Your task to perform on an android device: delete browsing data in the chrome app Image 0: 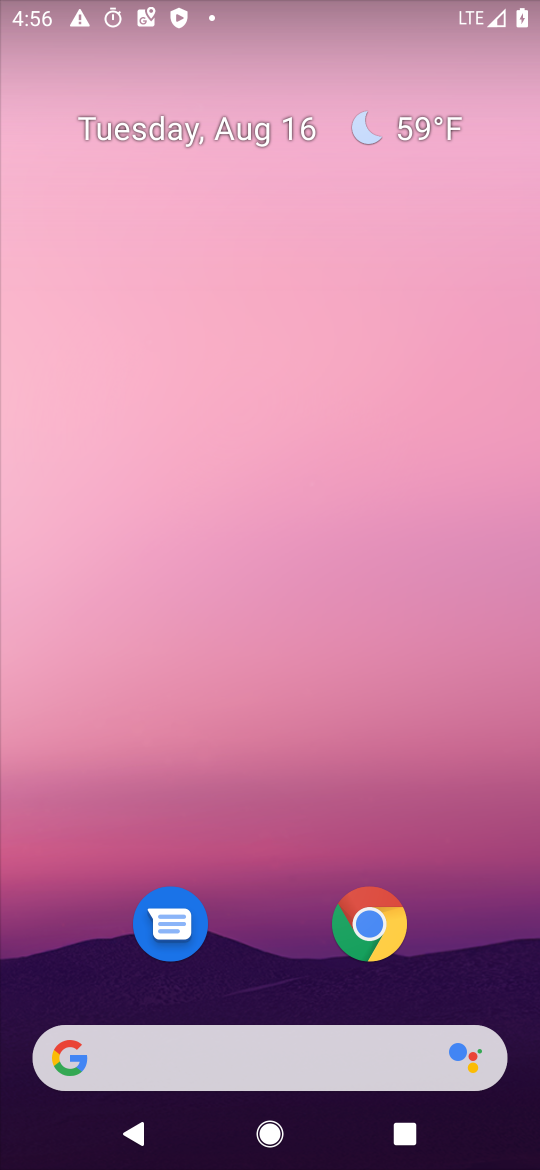
Step 0: click (354, 919)
Your task to perform on an android device: delete browsing data in the chrome app Image 1: 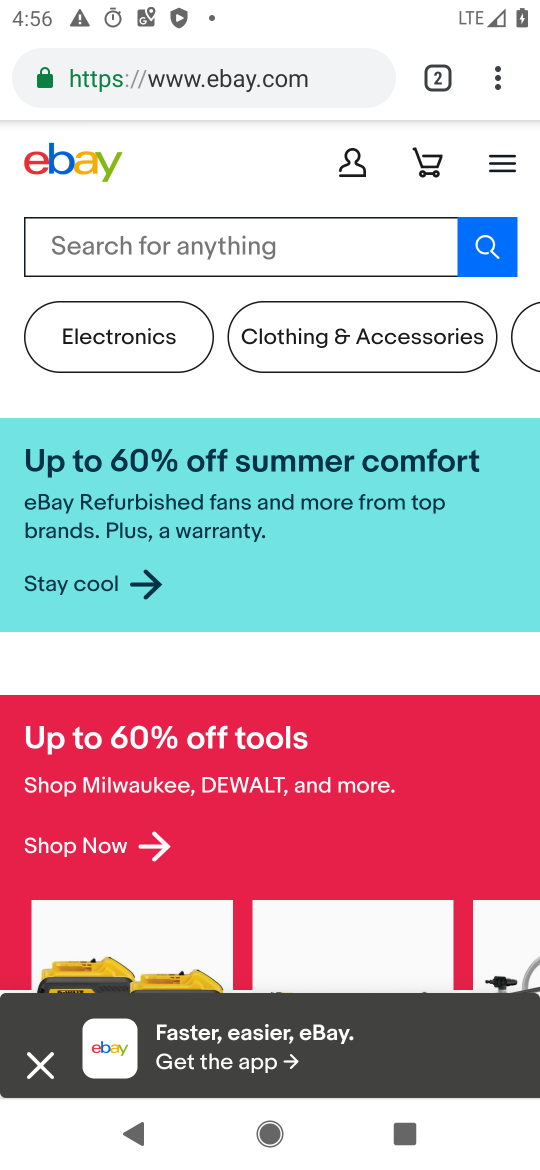
Step 1: click (496, 76)
Your task to perform on an android device: delete browsing data in the chrome app Image 2: 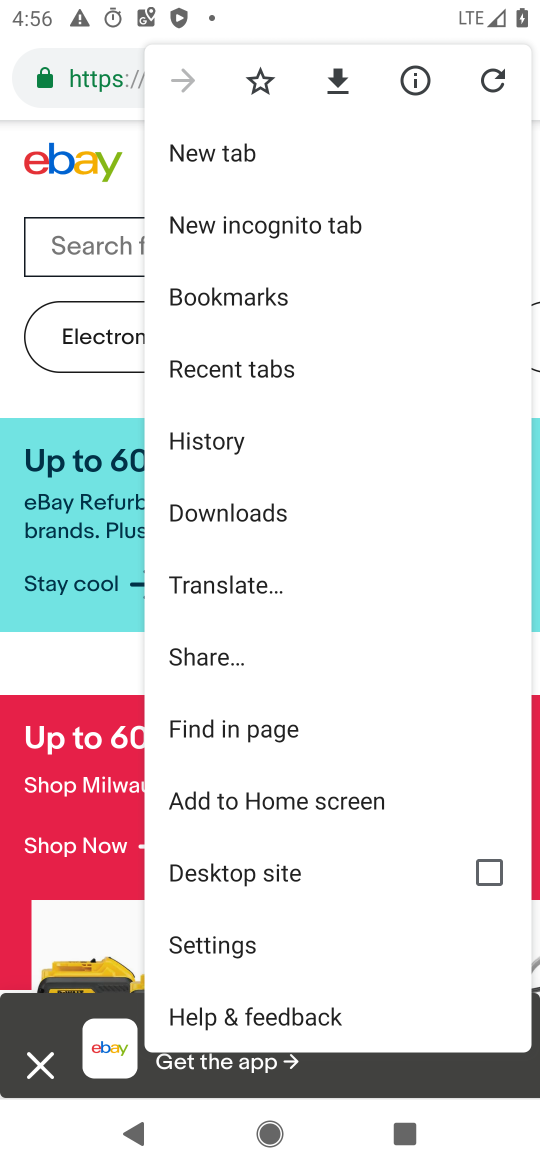
Step 2: click (208, 454)
Your task to perform on an android device: delete browsing data in the chrome app Image 3: 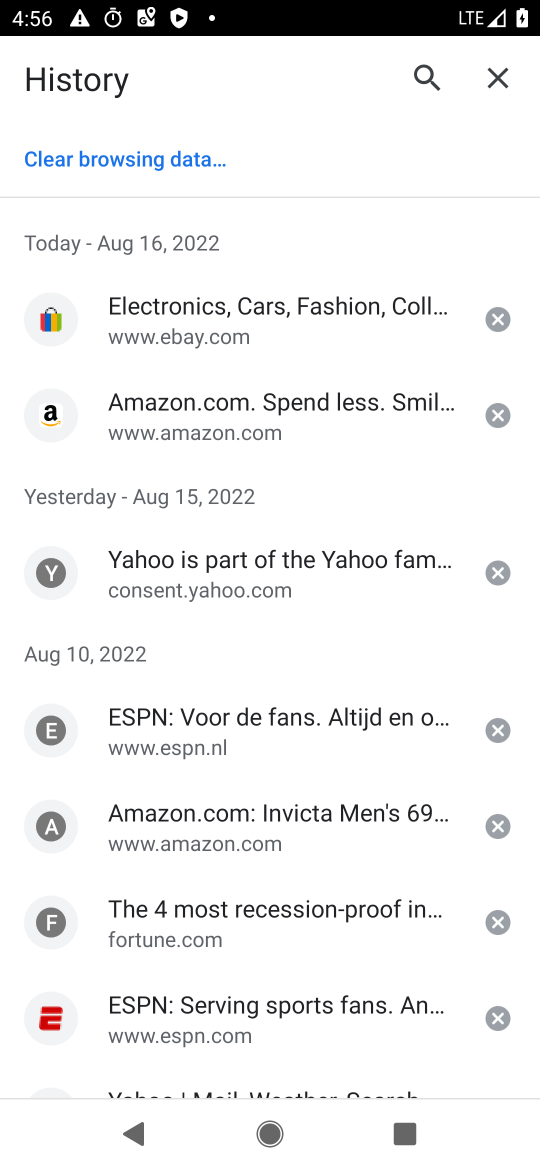
Step 3: click (130, 163)
Your task to perform on an android device: delete browsing data in the chrome app Image 4: 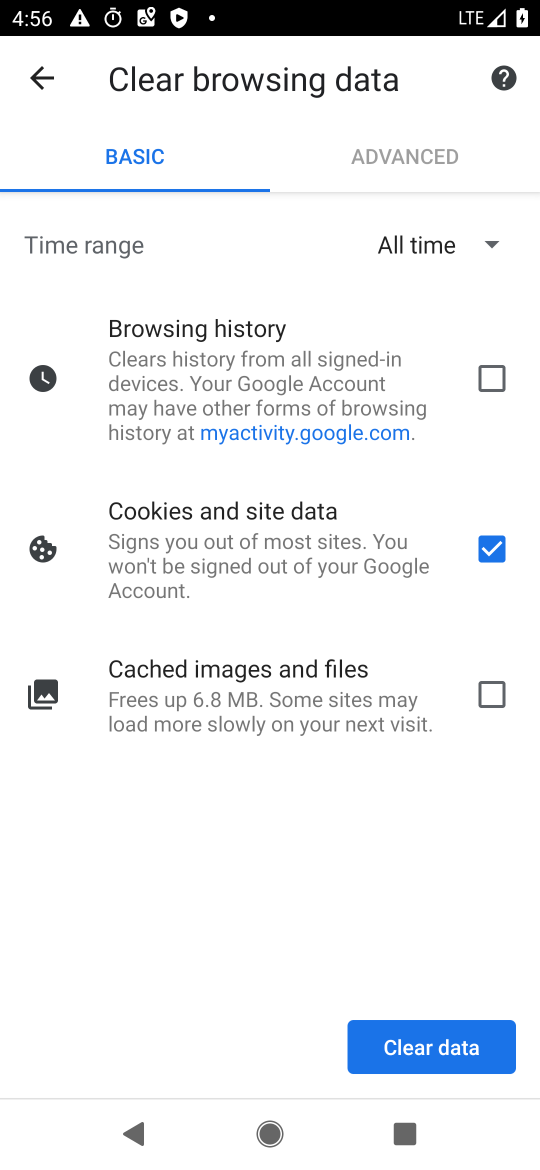
Step 4: click (487, 383)
Your task to perform on an android device: delete browsing data in the chrome app Image 5: 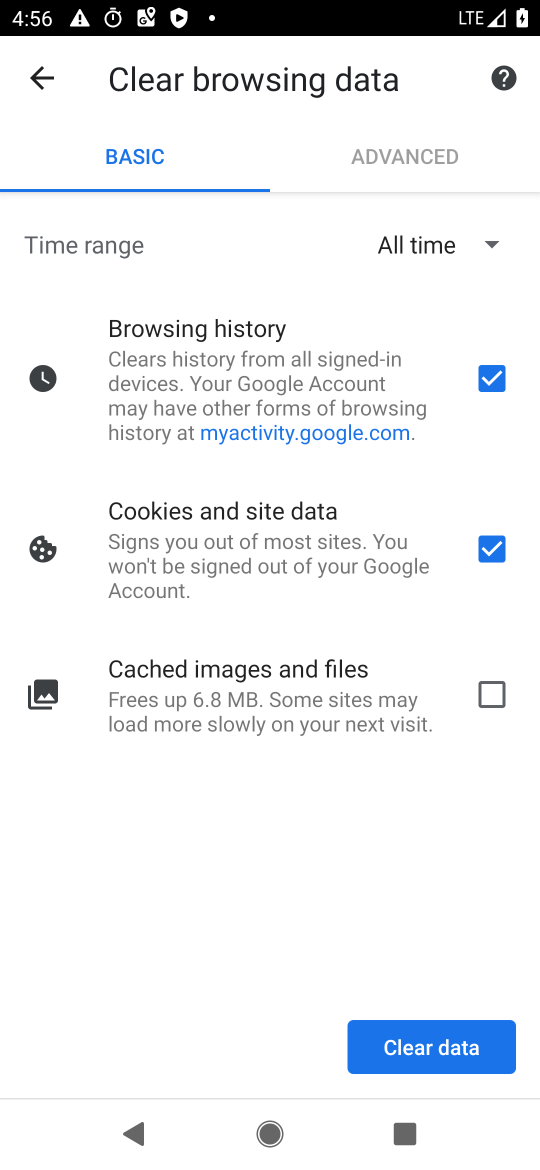
Step 5: click (490, 543)
Your task to perform on an android device: delete browsing data in the chrome app Image 6: 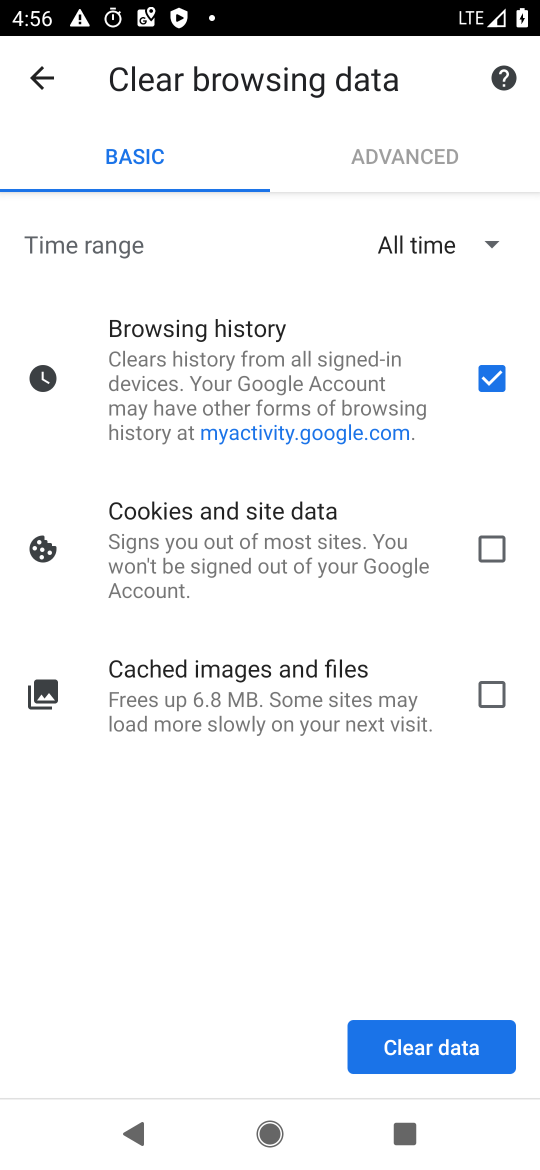
Step 6: click (437, 1028)
Your task to perform on an android device: delete browsing data in the chrome app Image 7: 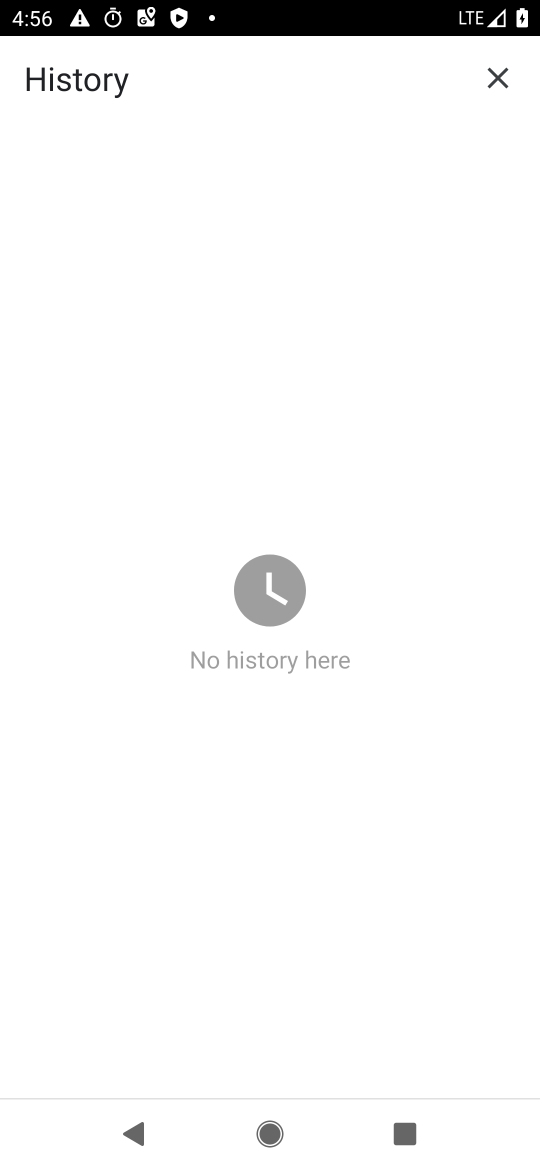
Step 7: task complete